Your task to perform on an android device: toggle notifications settings in the gmail app Image 0: 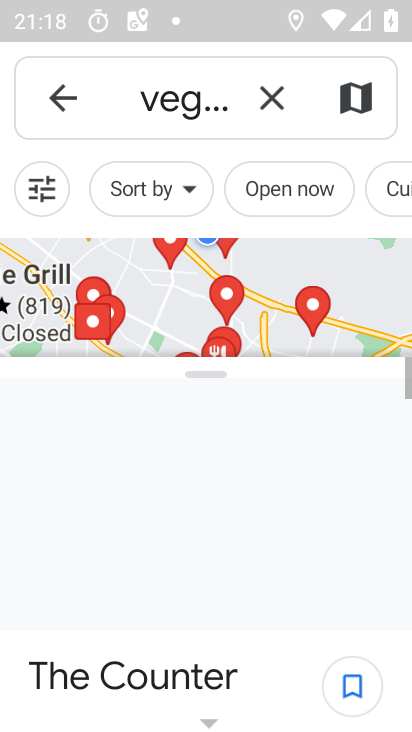
Step 0: press home button
Your task to perform on an android device: toggle notifications settings in the gmail app Image 1: 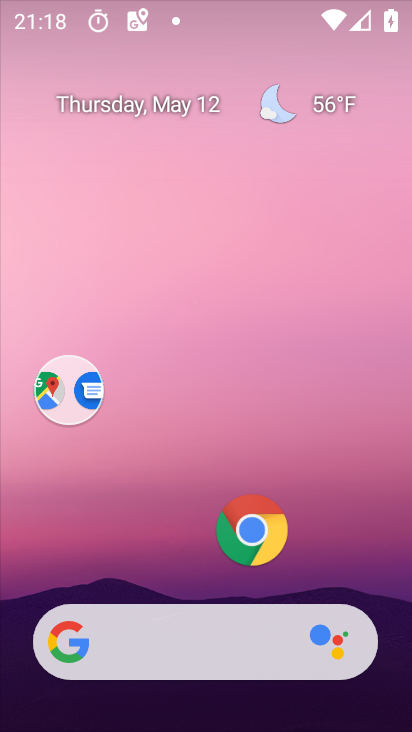
Step 1: drag from (165, 556) to (274, 14)
Your task to perform on an android device: toggle notifications settings in the gmail app Image 2: 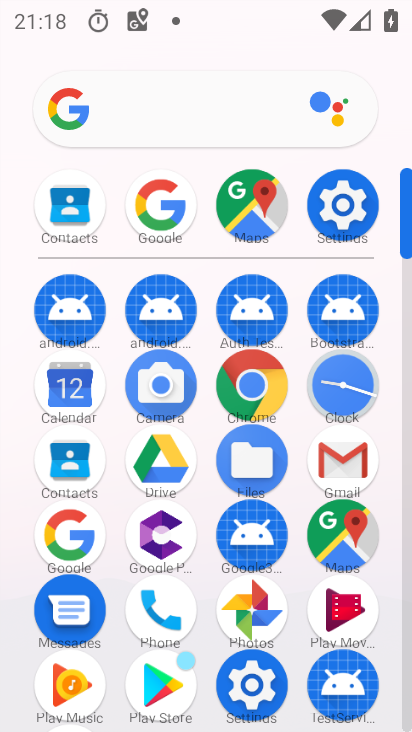
Step 2: click (343, 451)
Your task to perform on an android device: toggle notifications settings in the gmail app Image 3: 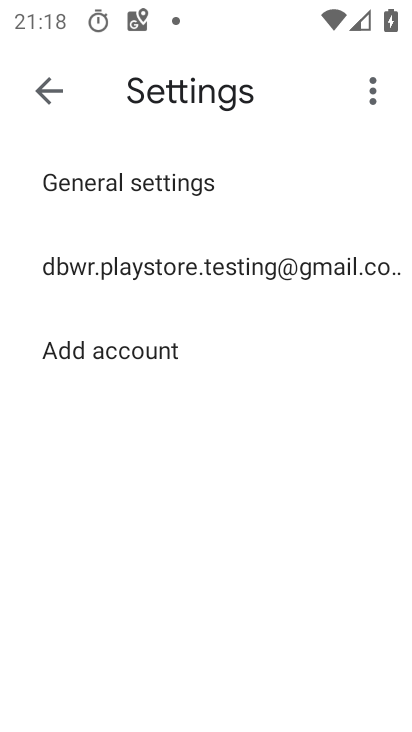
Step 3: click (136, 268)
Your task to perform on an android device: toggle notifications settings in the gmail app Image 4: 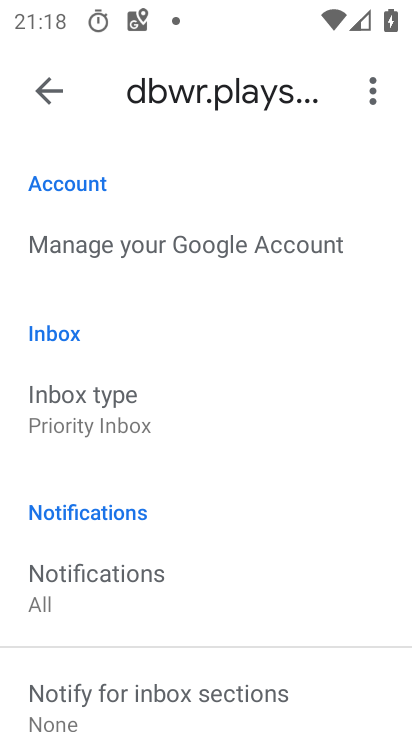
Step 4: click (127, 598)
Your task to perform on an android device: toggle notifications settings in the gmail app Image 5: 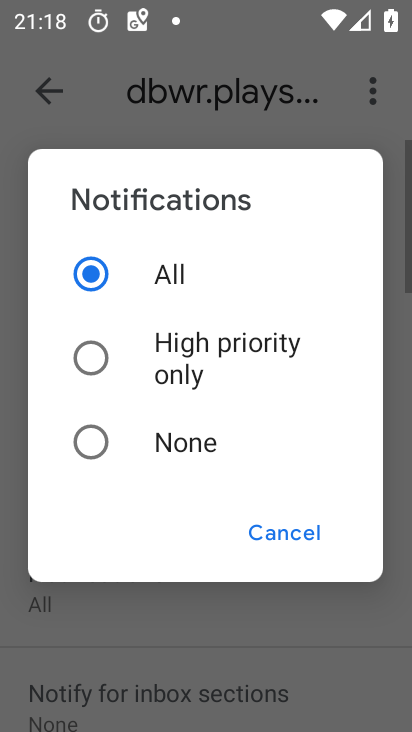
Step 5: click (89, 446)
Your task to perform on an android device: toggle notifications settings in the gmail app Image 6: 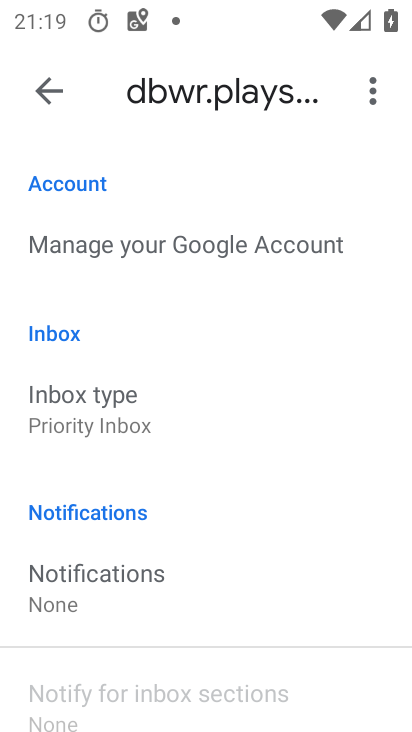
Step 6: task complete